Your task to perform on an android device: Open Youtube and go to the subscriptions tab Image 0: 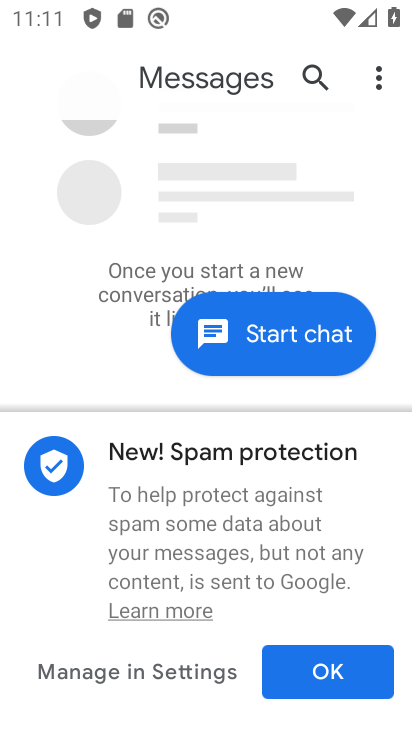
Step 0: press home button
Your task to perform on an android device: Open Youtube and go to the subscriptions tab Image 1: 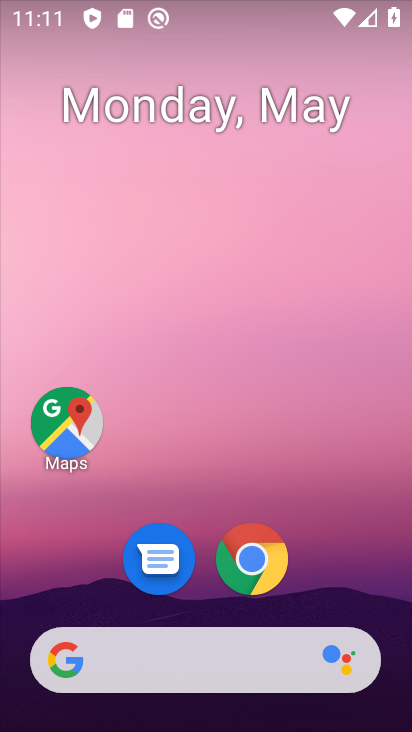
Step 1: drag from (76, 611) to (191, 97)
Your task to perform on an android device: Open Youtube and go to the subscriptions tab Image 2: 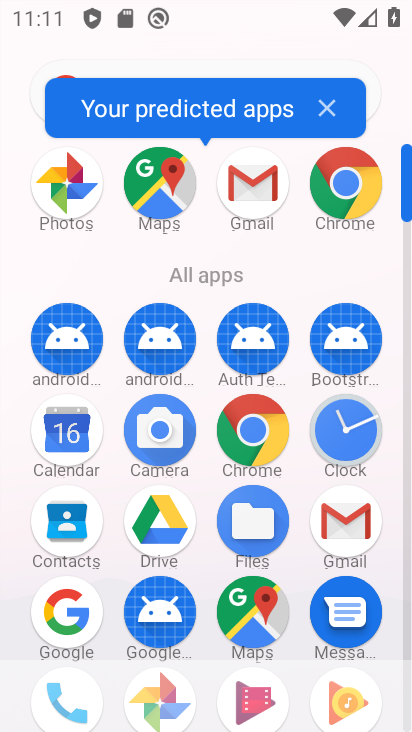
Step 2: drag from (163, 629) to (238, 333)
Your task to perform on an android device: Open Youtube and go to the subscriptions tab Image 3: 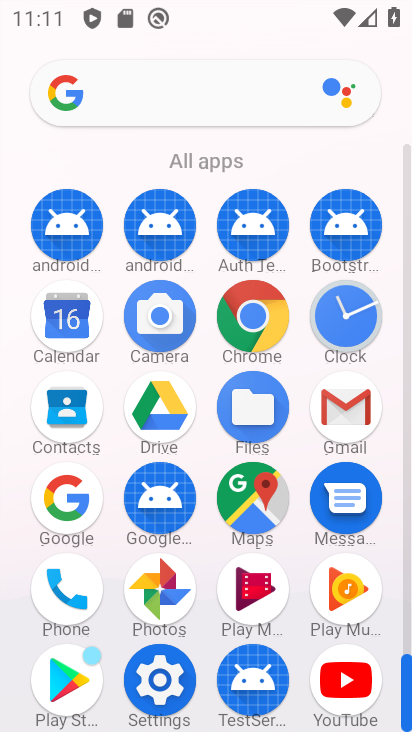
Step 3: click (356, 678)
Your task to perform on an android device: Open Youtube and go to the subscriptions tab Image 4: 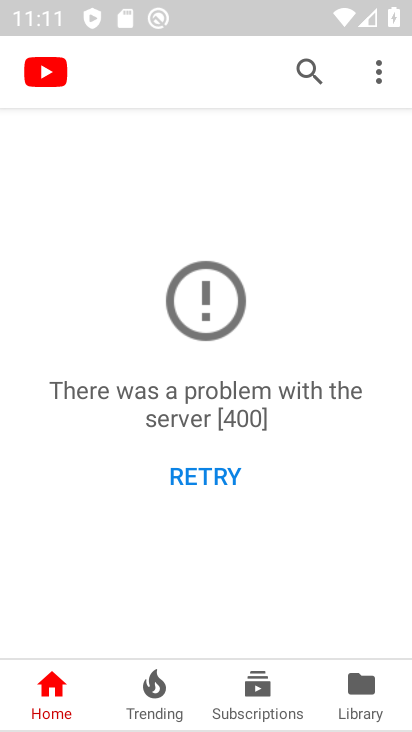
Step 4: click (257, 700)
Your task to perform on an android device: Open Youtube and go to the subscriptions tab Image 5: 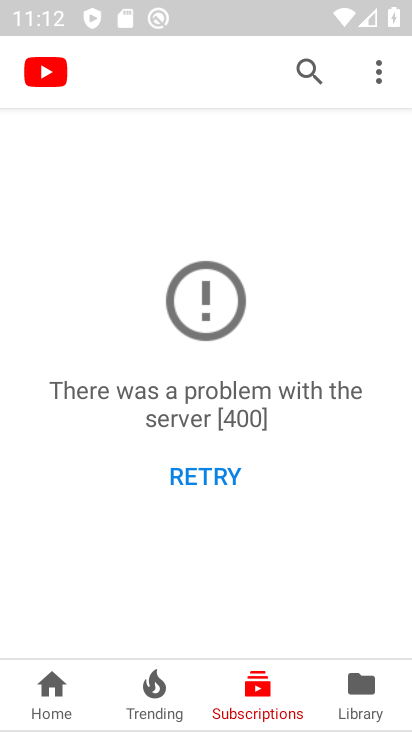
Step 5: task complete